Your task to perform on an android device: check storage Image 0: 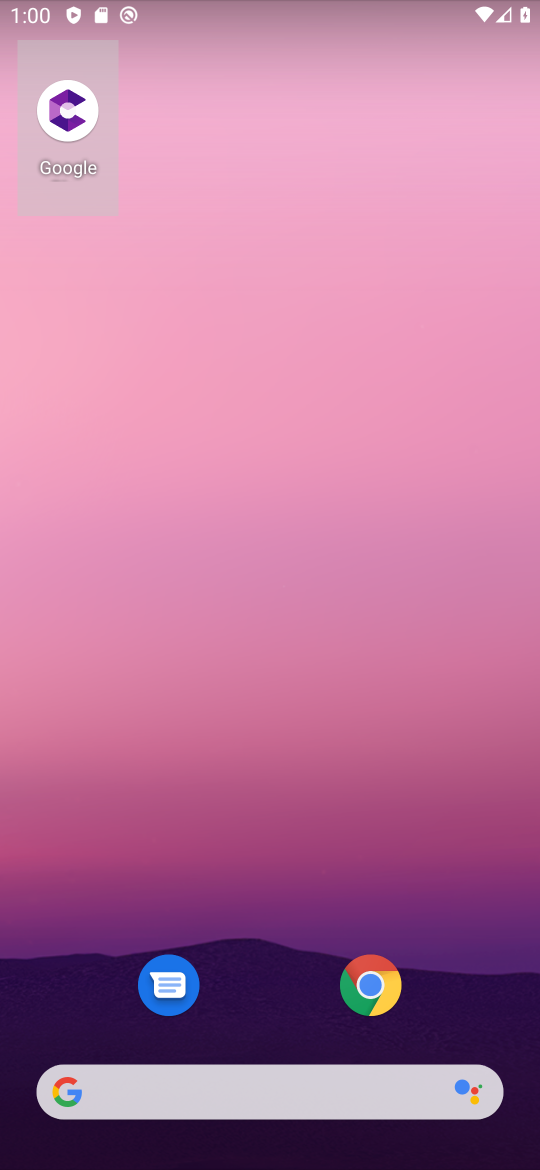
Step 0: drag from (277, 968) to (241, 48)
Your task to perform on an android device: check storage Image 1: 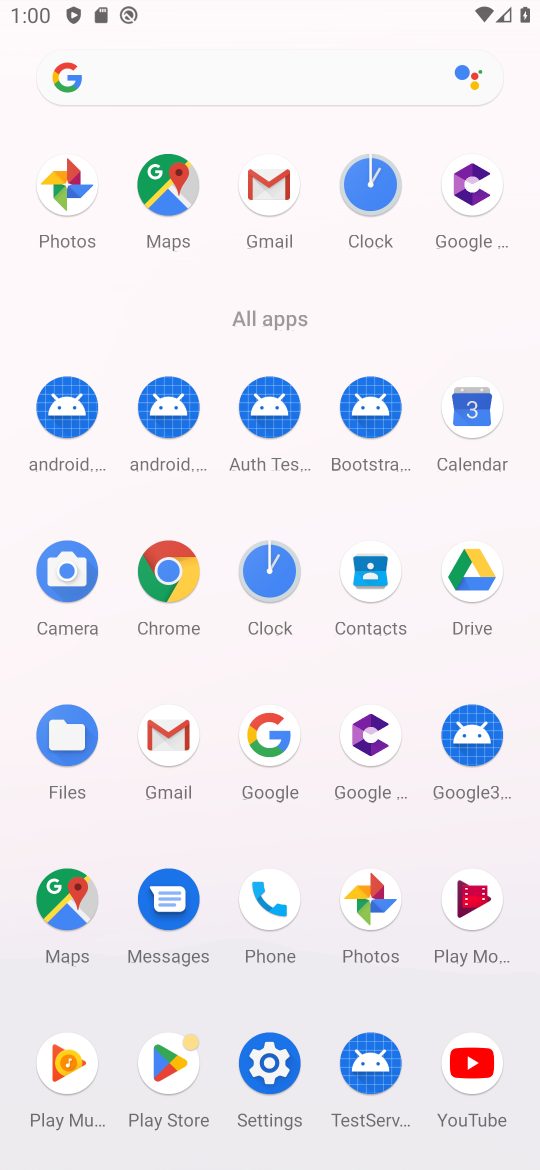
Step 1: drag from (304, 375) to (309, 108)
Your task to perform on an android device: check storage Image 2: 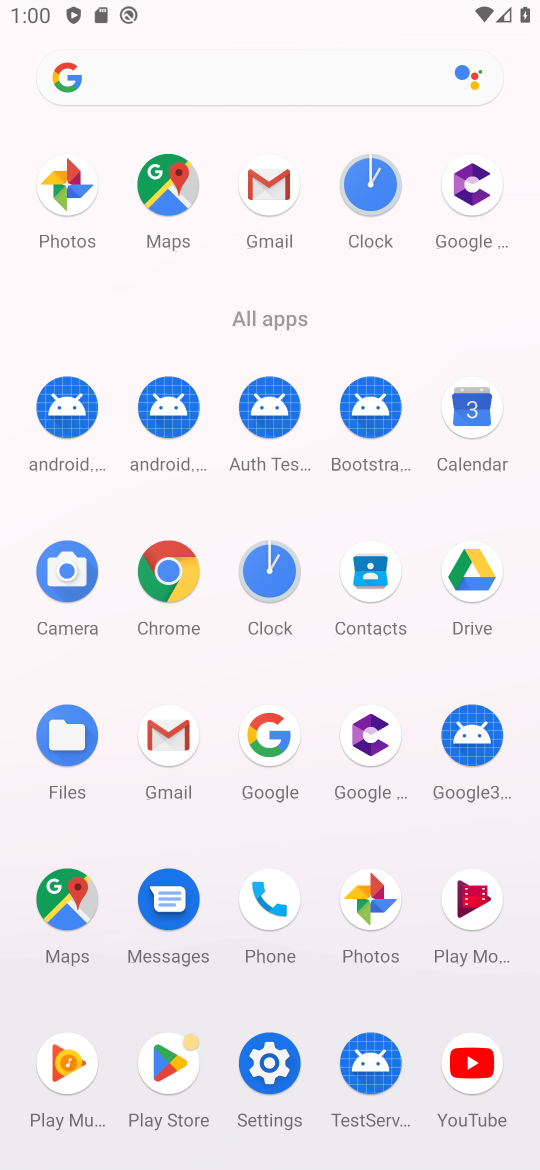
Step 2: click (268, 1057)
Your task to perform on an android device: check storage Image 3: 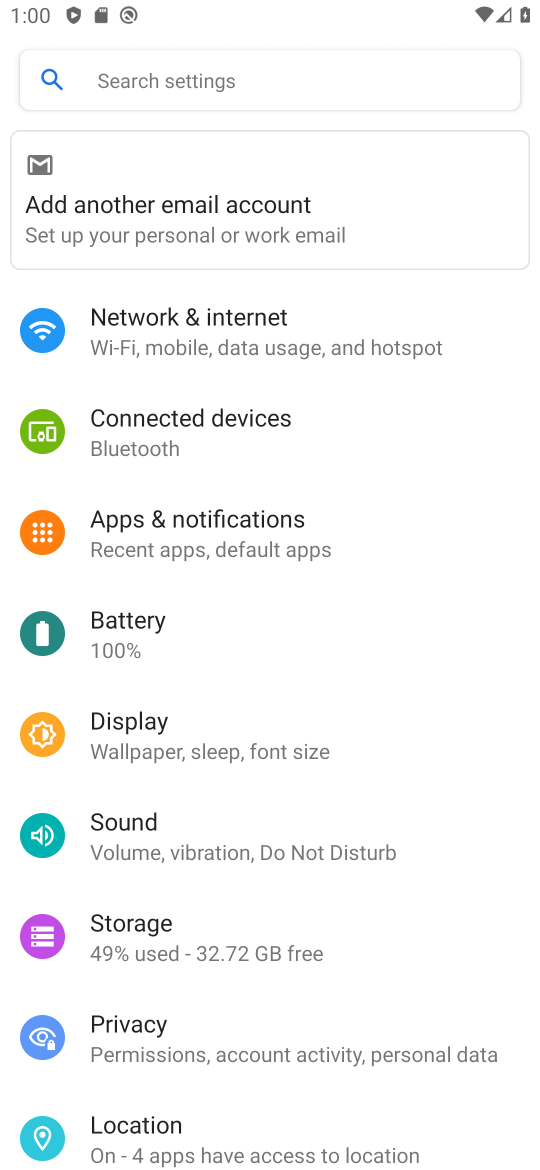
Step 3: click (177, 943)
Your task to perform on an android device: check storage Image 4: 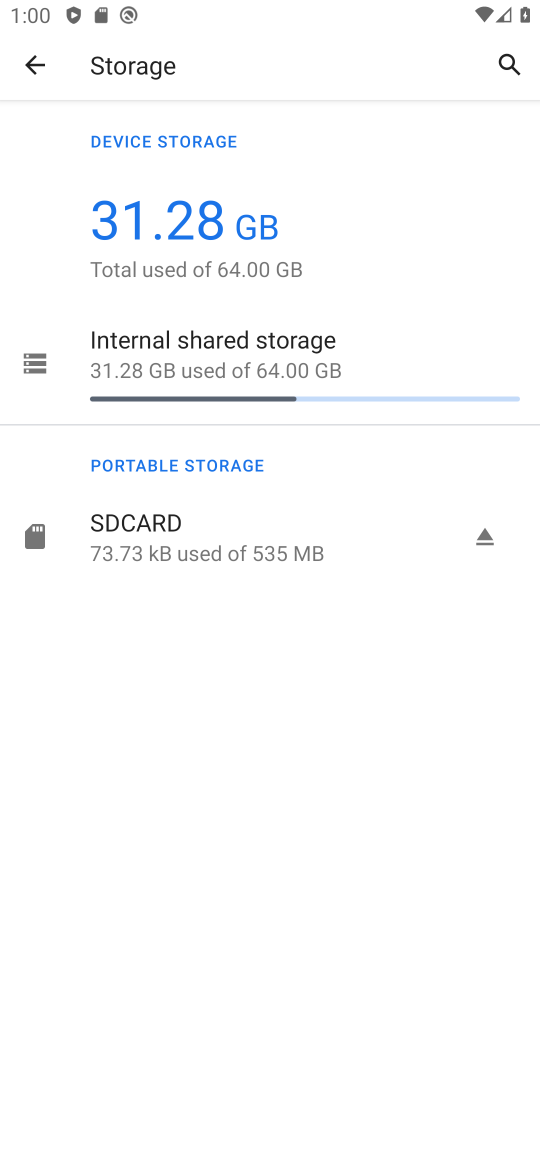
Step 4: task complete